Your task to perform on an android device: toggle improve location accuracy Image 0: 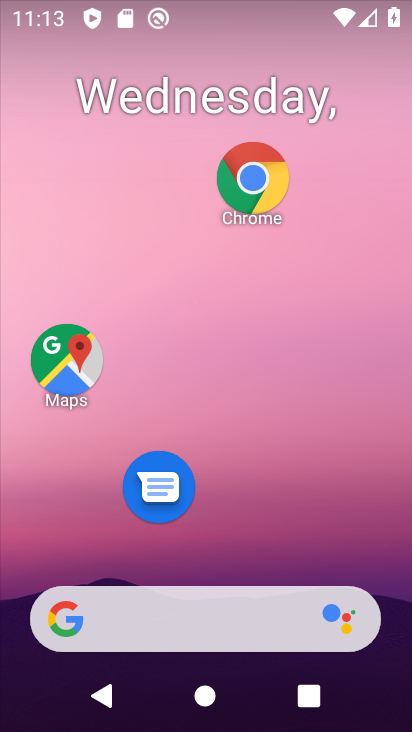
Step 0: drag from (314, 525) to (297, 58)
Your task to perform on an android device: toggle improve location accuracy Image 1: 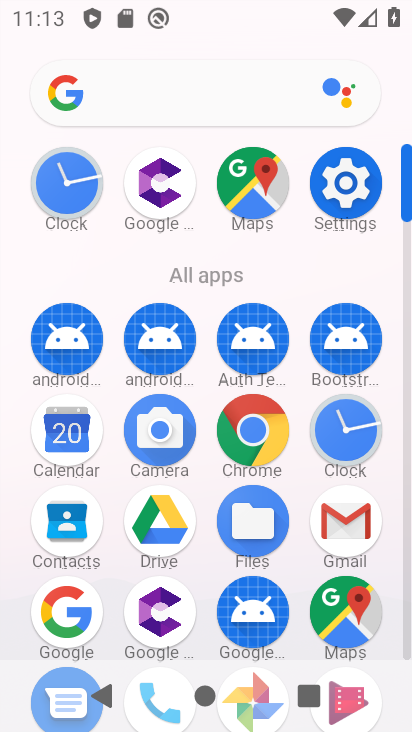
Step 1: click (351, 190)
Your task to perform on an android device: toggle improve location accuracy Image 2: 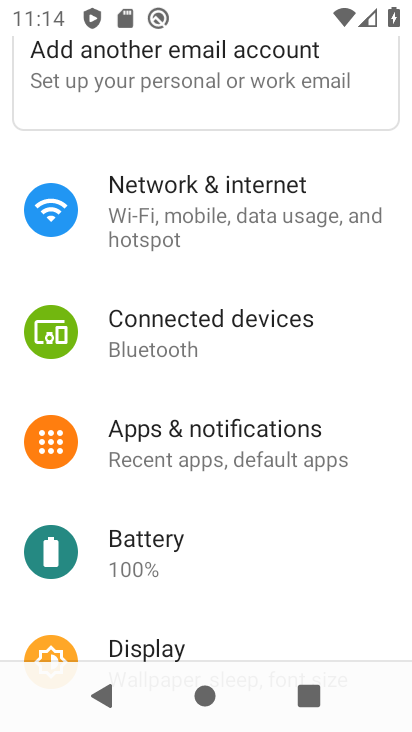
Step 2: drag from (211, 586) to (224, 202)
Your task to perform on an android device: toggle improve location accuracy Image 3: 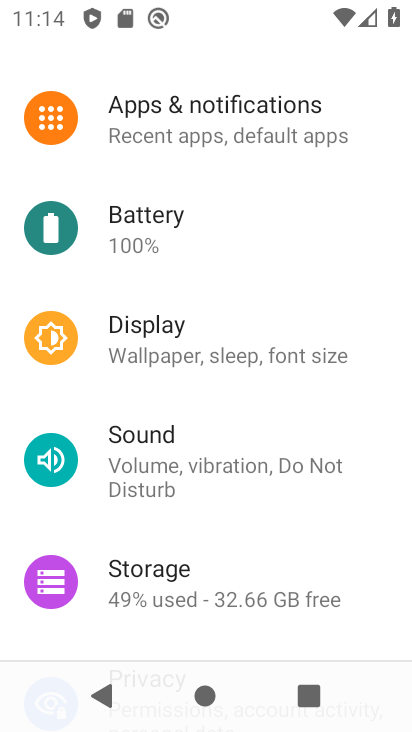
Step 3: drag from (261, 543) to (261, 213)
Your task to perform on an android device: toggle improve location accuracy Image 4: 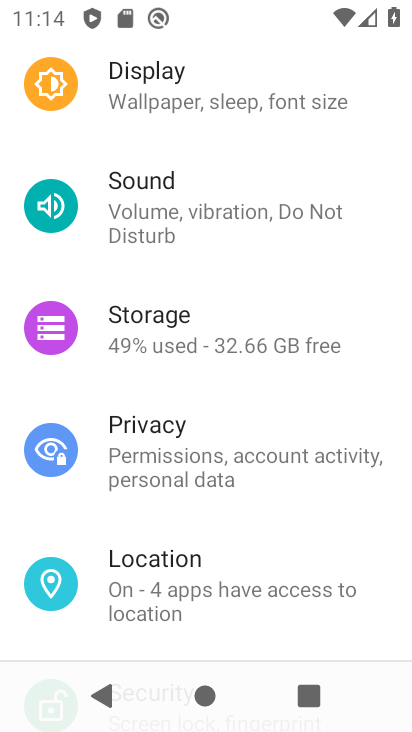
Step 4: click (231, 582)
Your task to perform on an android device: toggle improve location accuracy Image 5: 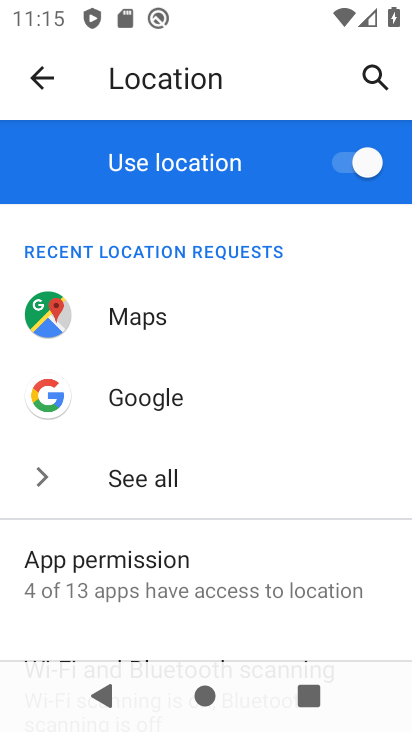
Step 5: drag from (302, 563) to (299, 314)
Your task to perform on an android device: toggle improve location accuracy Image 6: 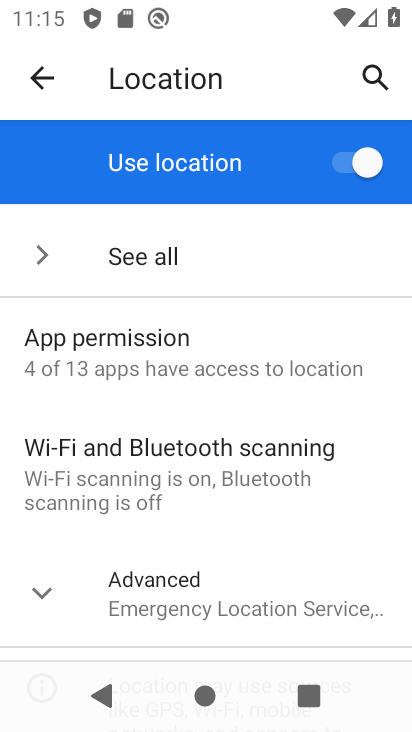
Step 6: click (247, 589)
Your task to perform on an android device: toggle improve location accuracy Image 7: 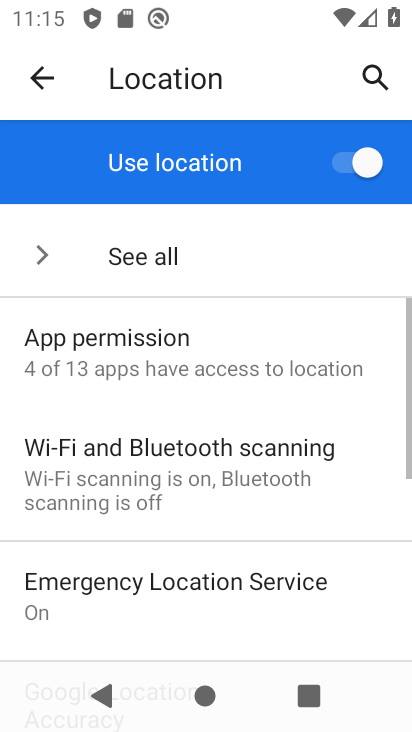
Step 7: drag from (257, 556) to (289, 247)
Your task to perform on an android device: toggle improve location accuracy Image 8: 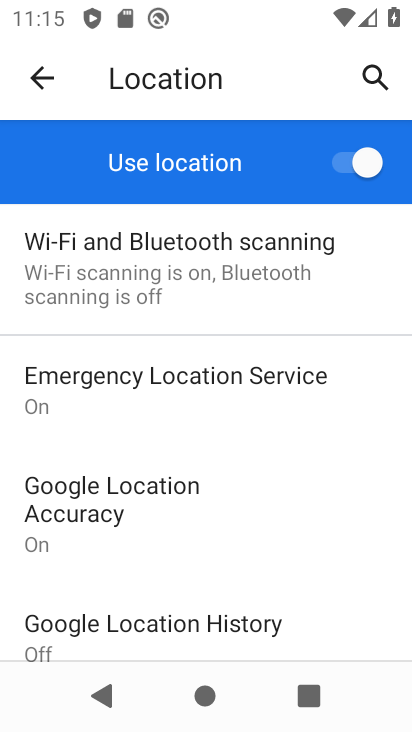
Step 8: click (127, 518)
Your task to perform on an android device: toggle improve location accuracy Image 9: 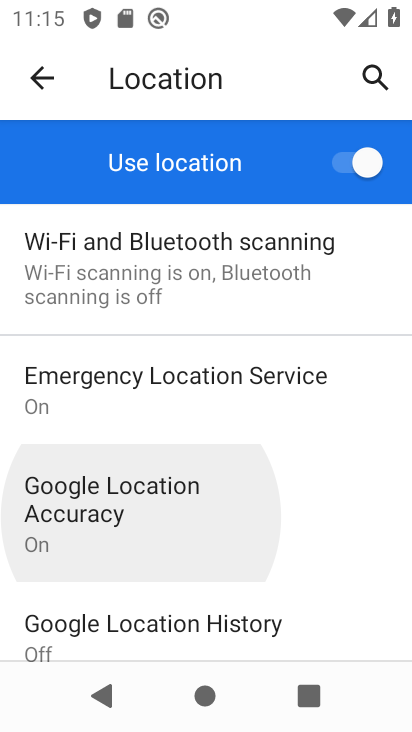
Step 9: click (127, 518)
Your task to perform on an android device: toggle improve location accuracy Image 10: 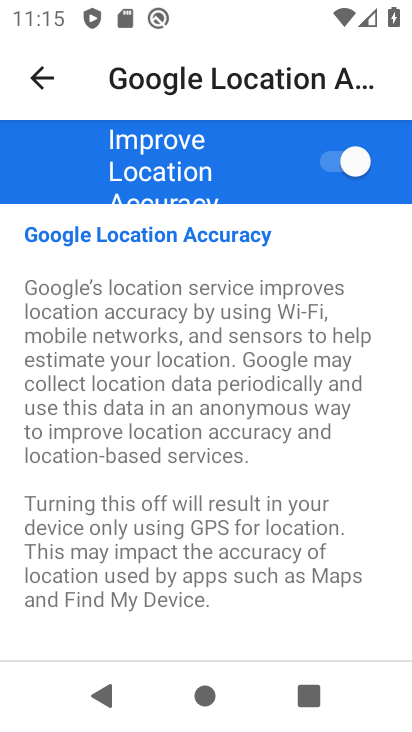
Step 10: click (336, 160)
Your task to perform on an android device: toggle improve location accuracy Image 11: 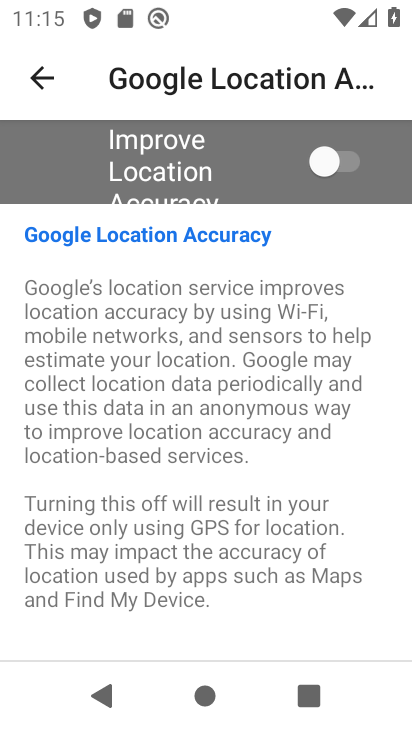
Step 11: task complete